Your task to perform on an android device: Search for jbl charge 4 on amazon.com, select the first entry, and add it to the cart. Image 0: 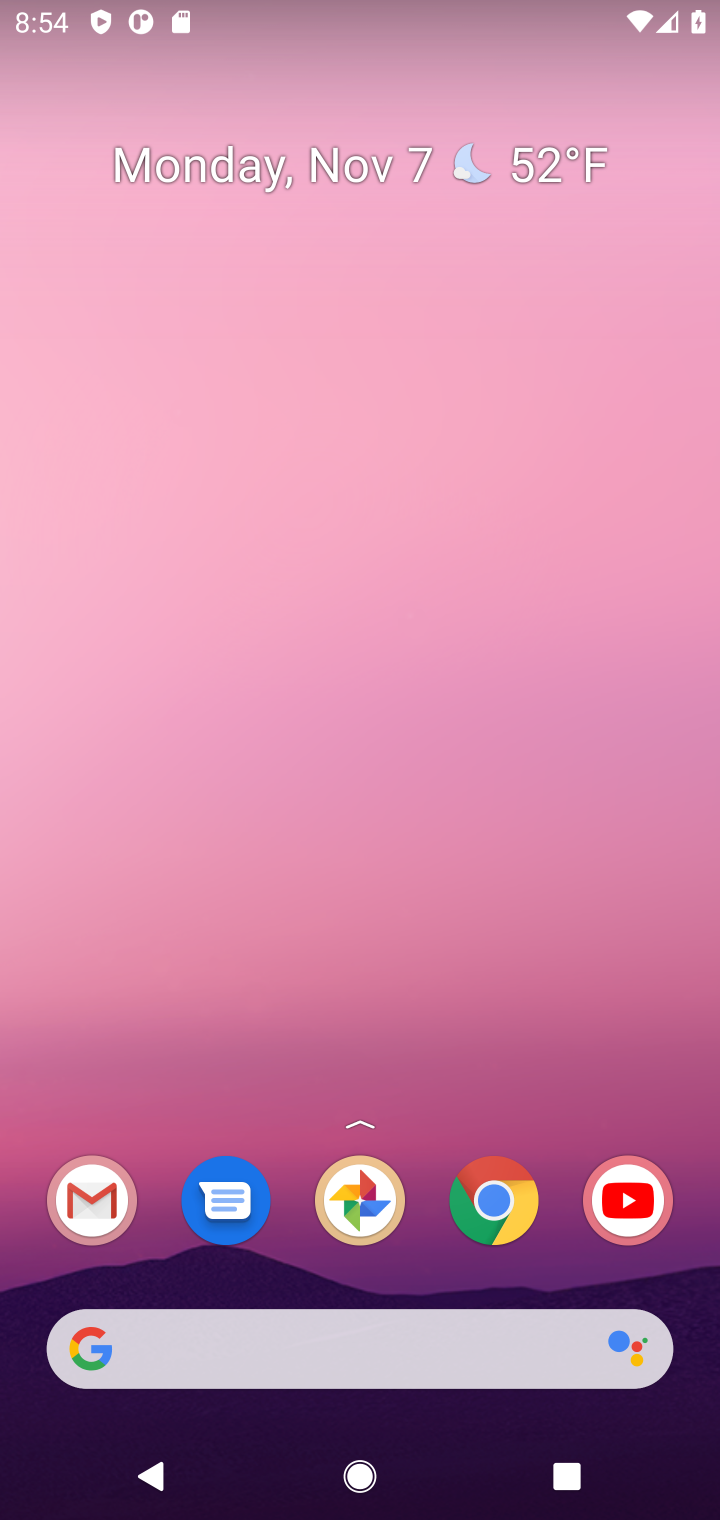
Step 0: click (502, 1192)
Your task to perform on an android device: Search for jbl charge 4 on amazon.com, select the first entry, and add it to the cart. Image 1: 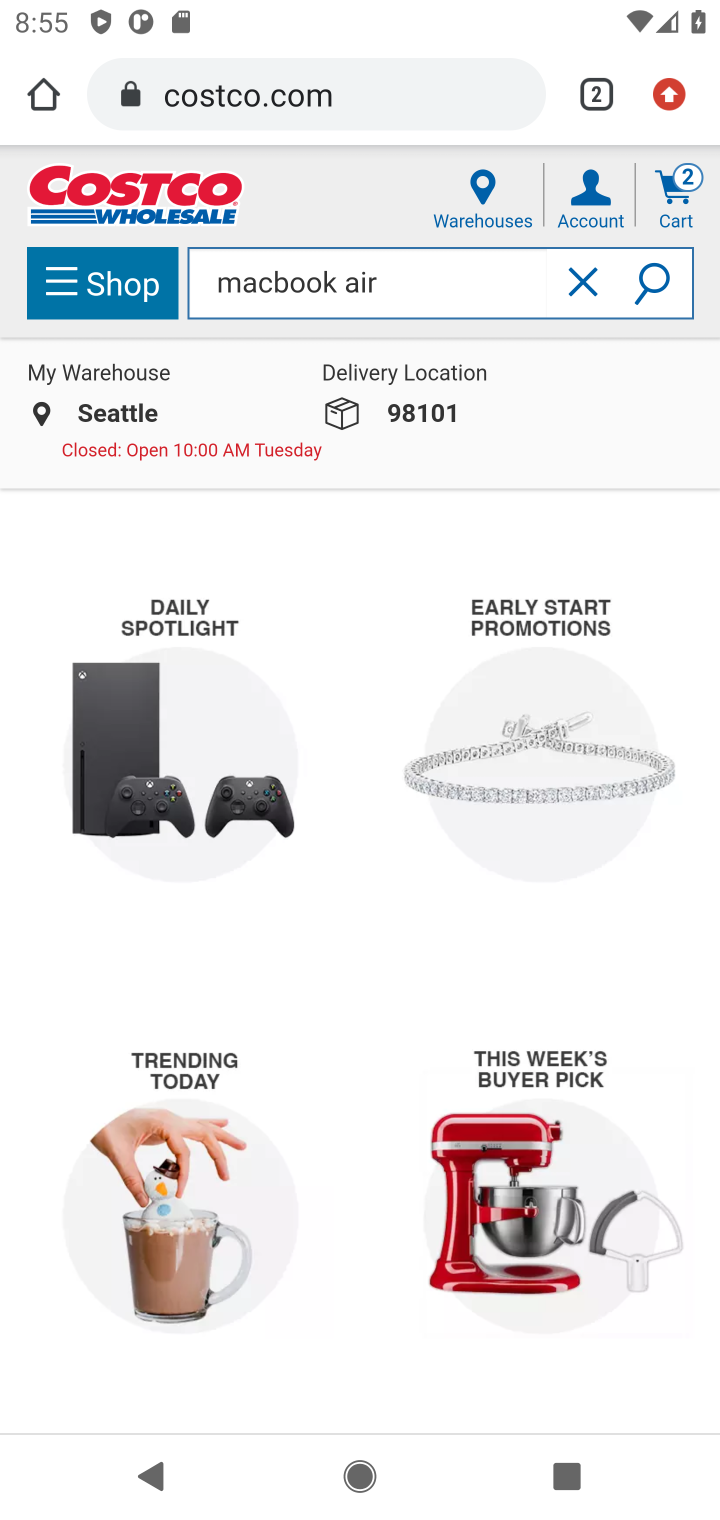
Step 1: click (51, 107)
Your task to perform on an android device: Search for jbl charge 4 on amazon.com, select the first entry, and add it to the cart. Image 2: 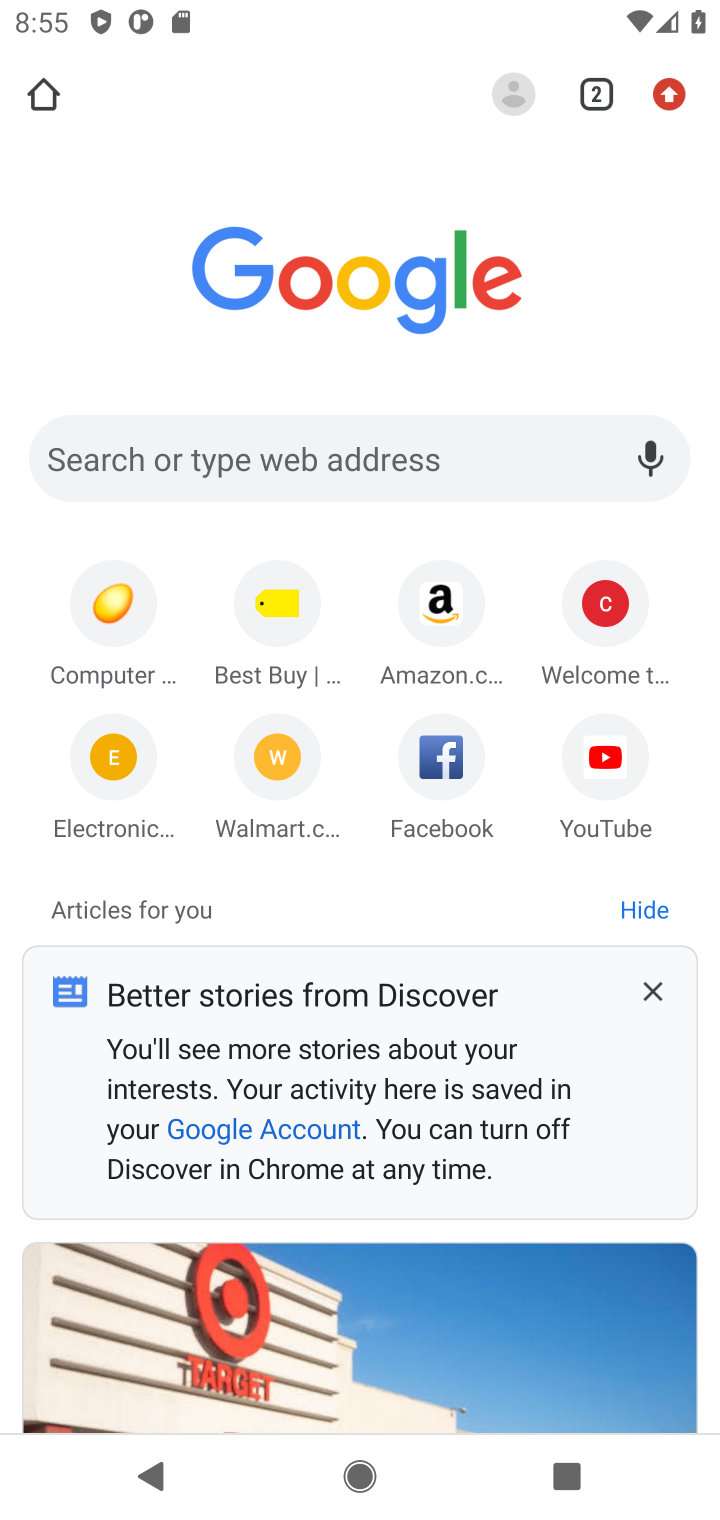
Step 2: click (447, 612)
Your task to perform on an android device: Search for jbl charge 4 on amazon.com, select the first entry, and add it to the cart. Image 3: 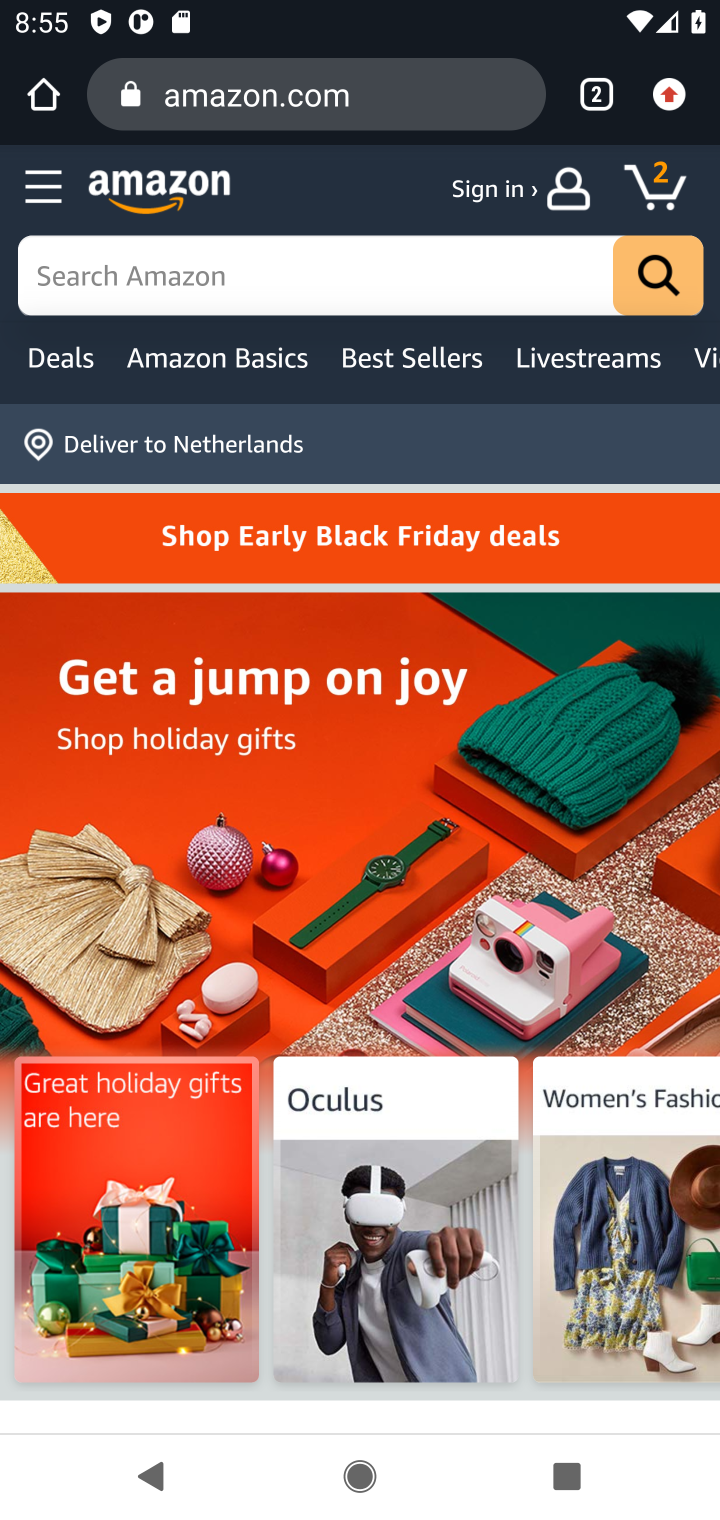
Step 3: click (482, 285)
Your task to perform on an android device: Search for jbl charge 4 on amazon.com, select the first entry, and add it to the cart. Image 4: 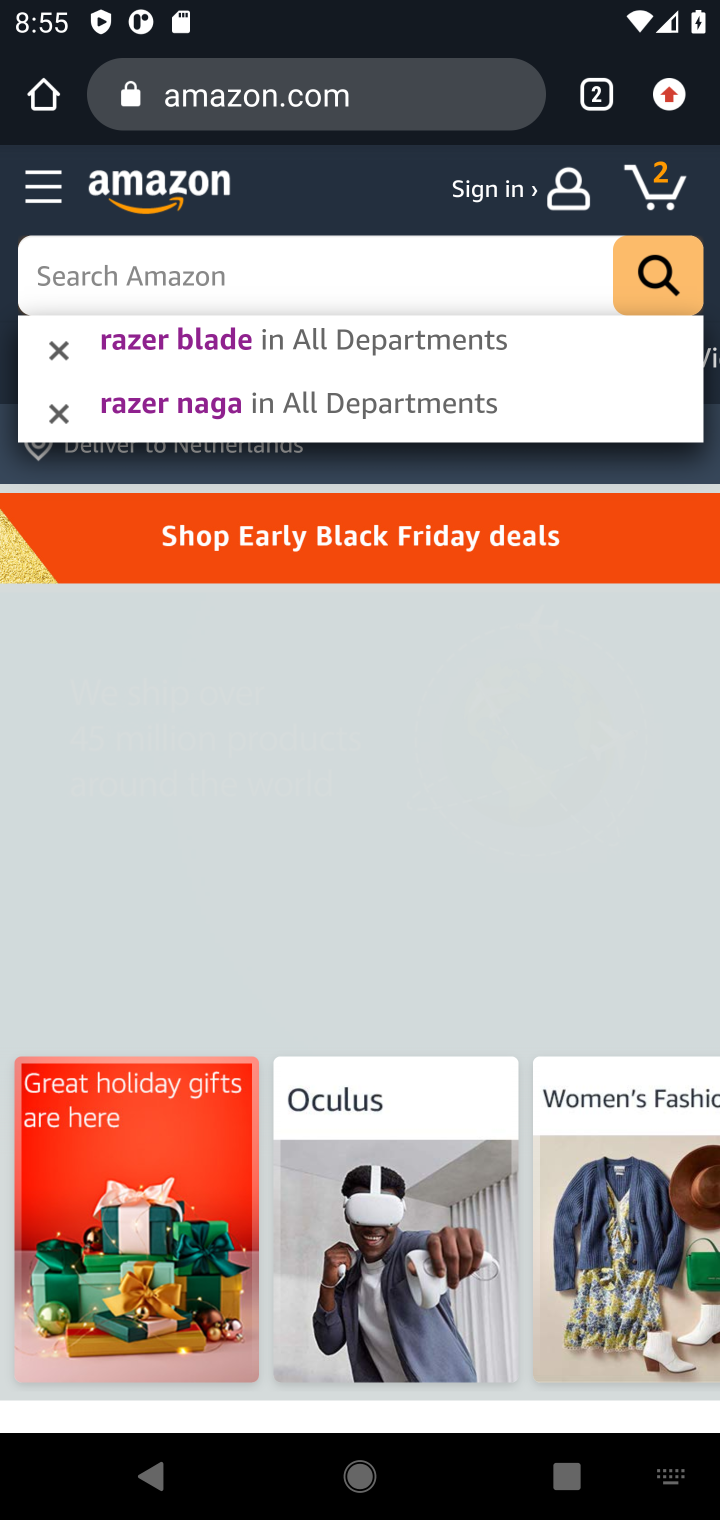
Step 4: type " jbl charge 4"
Your task to perform on an android device: Search for jbl charge 4 on amazon.com, select the first entry, and add it to the cart. Image 5: 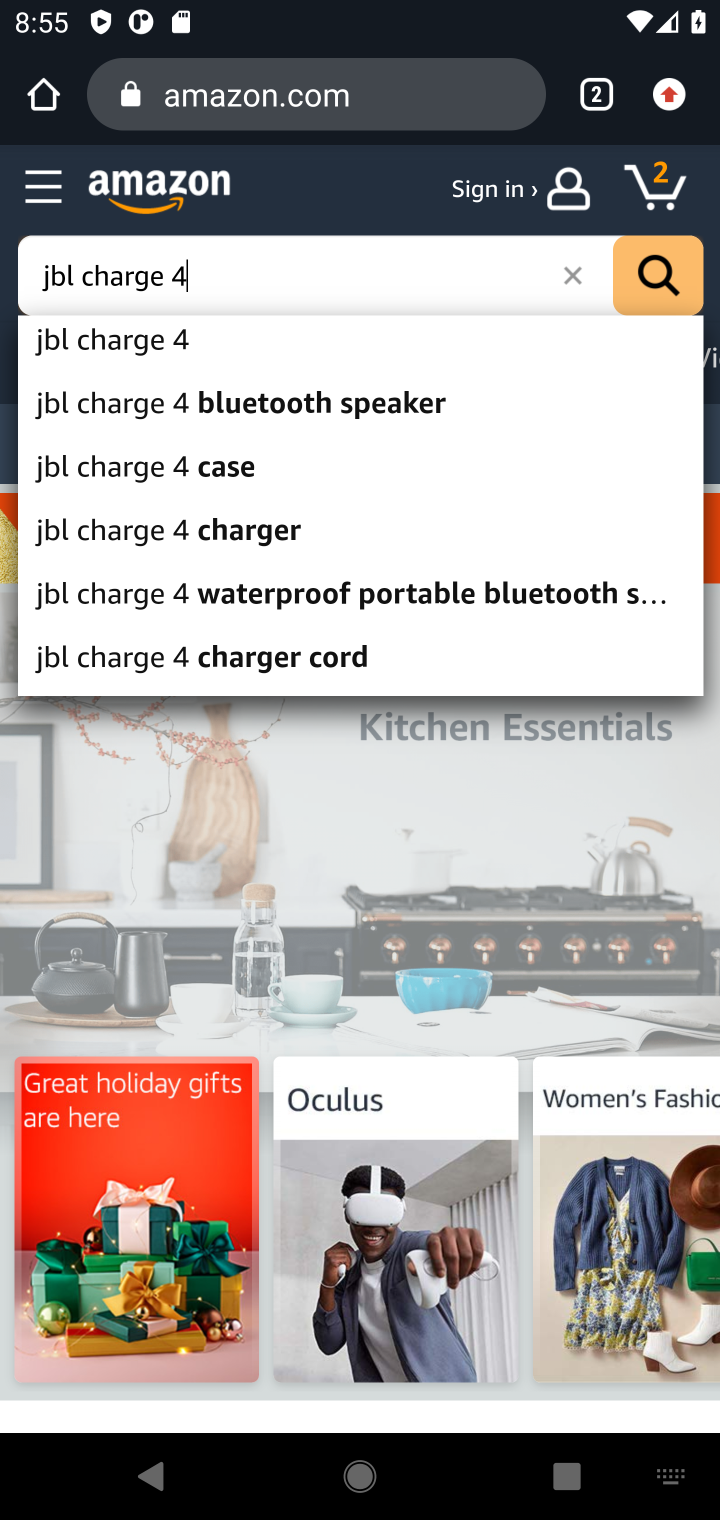
Step 5: click (159, 333)
Your task to perform on an android device: Search for jbl charge 4 on amazon.com, select the first entry, and add it to the cart. Image 6: 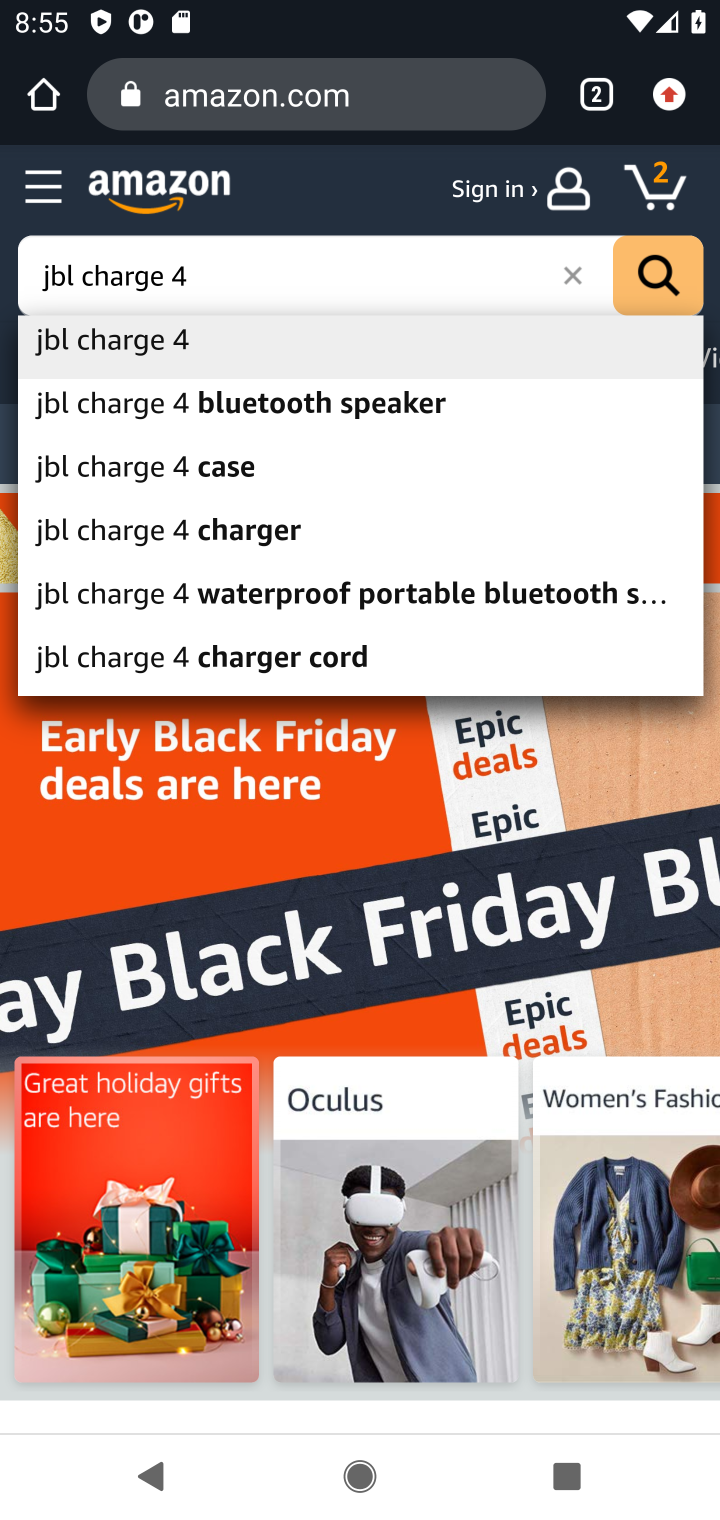
Step 6: click (159, 333)
Your task to perform on an android device: Search for jbl charge 4 on amazon.com, select the first entry, and add it to the cart. Image 7: 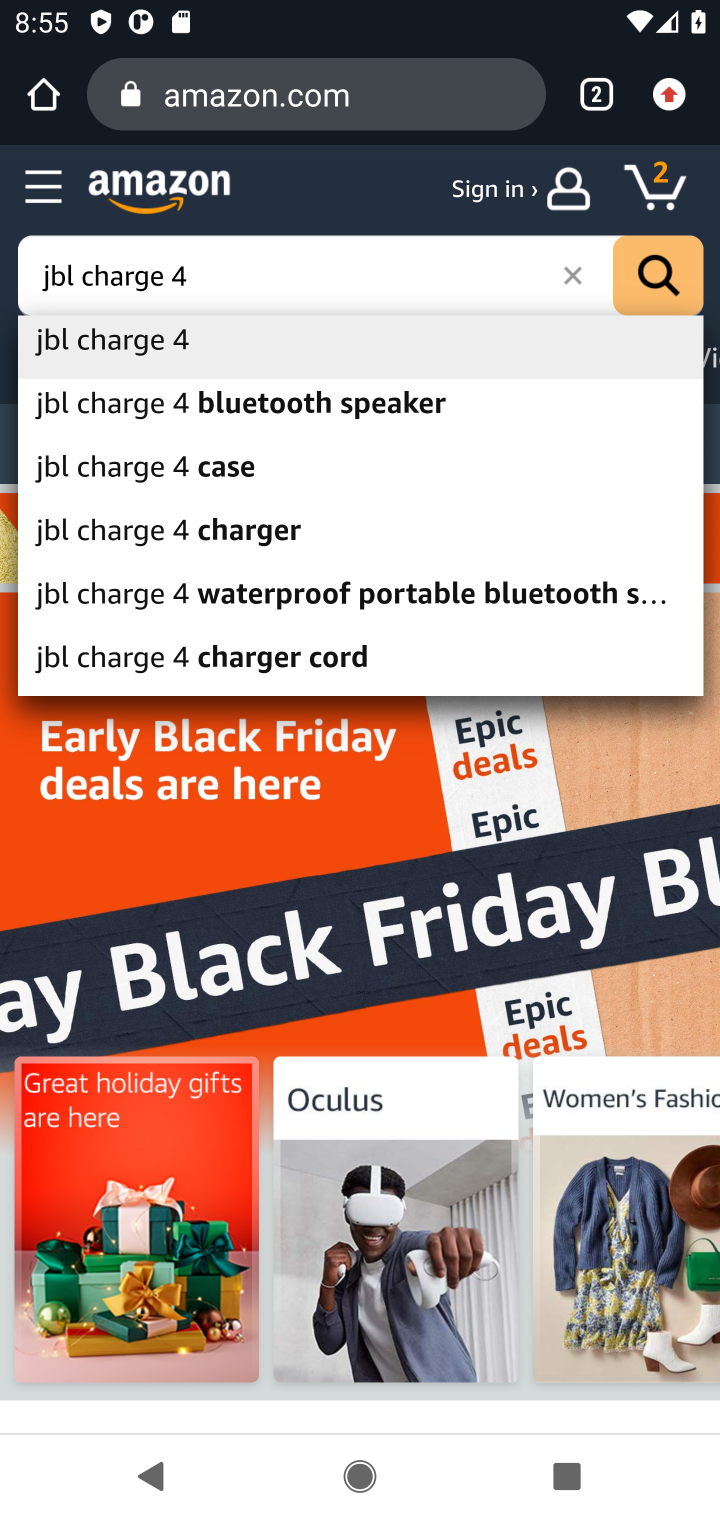
Step 7: click (116, 330)
Your task to perform on an android device: Search for jbl charge 4 on amazon.com, select the first entry, and add it to the cart. Image 8: 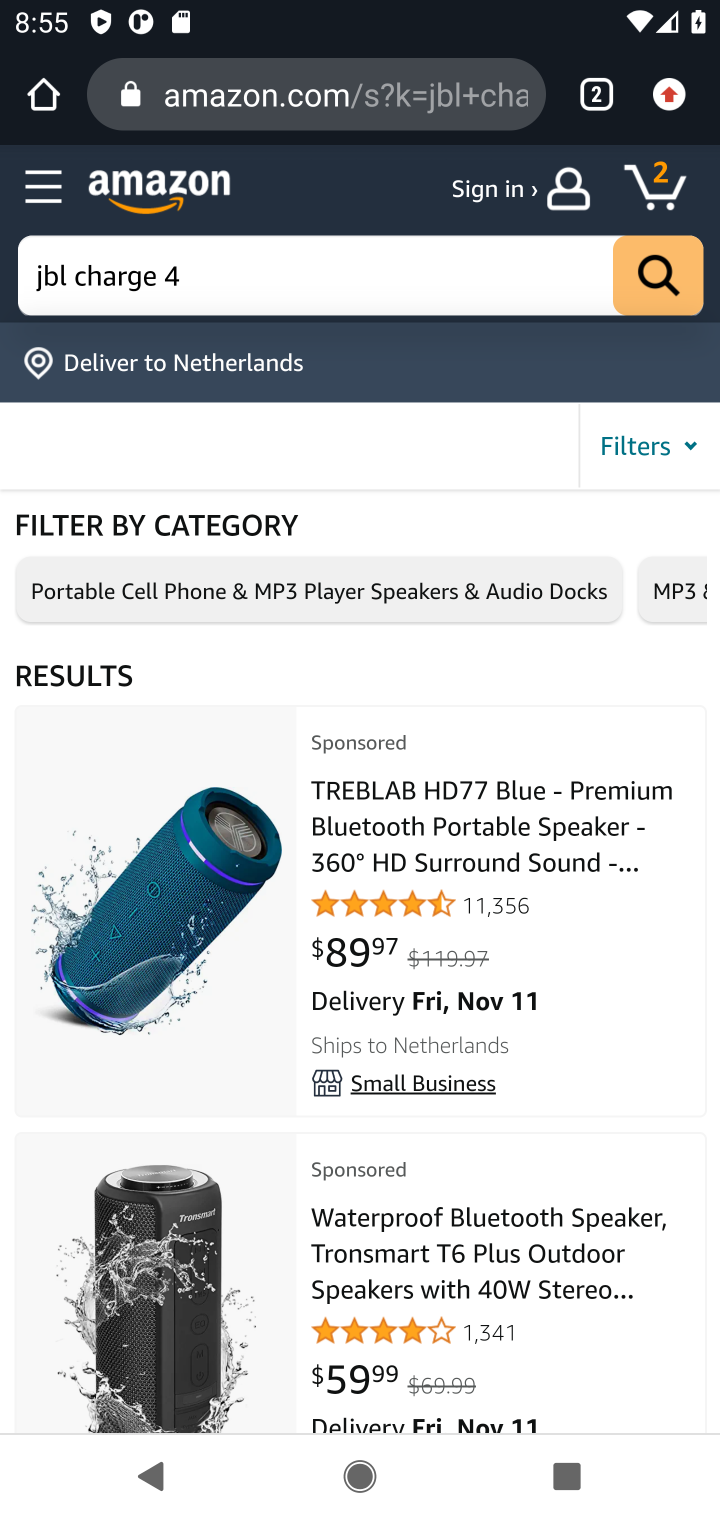
Step 8: drag from (587, 1087) to (446, 648)
Your task to perform on an android device: Search for jbl charge 4 on amazon.com, select the first entry, and add it to the cart. Image 9: 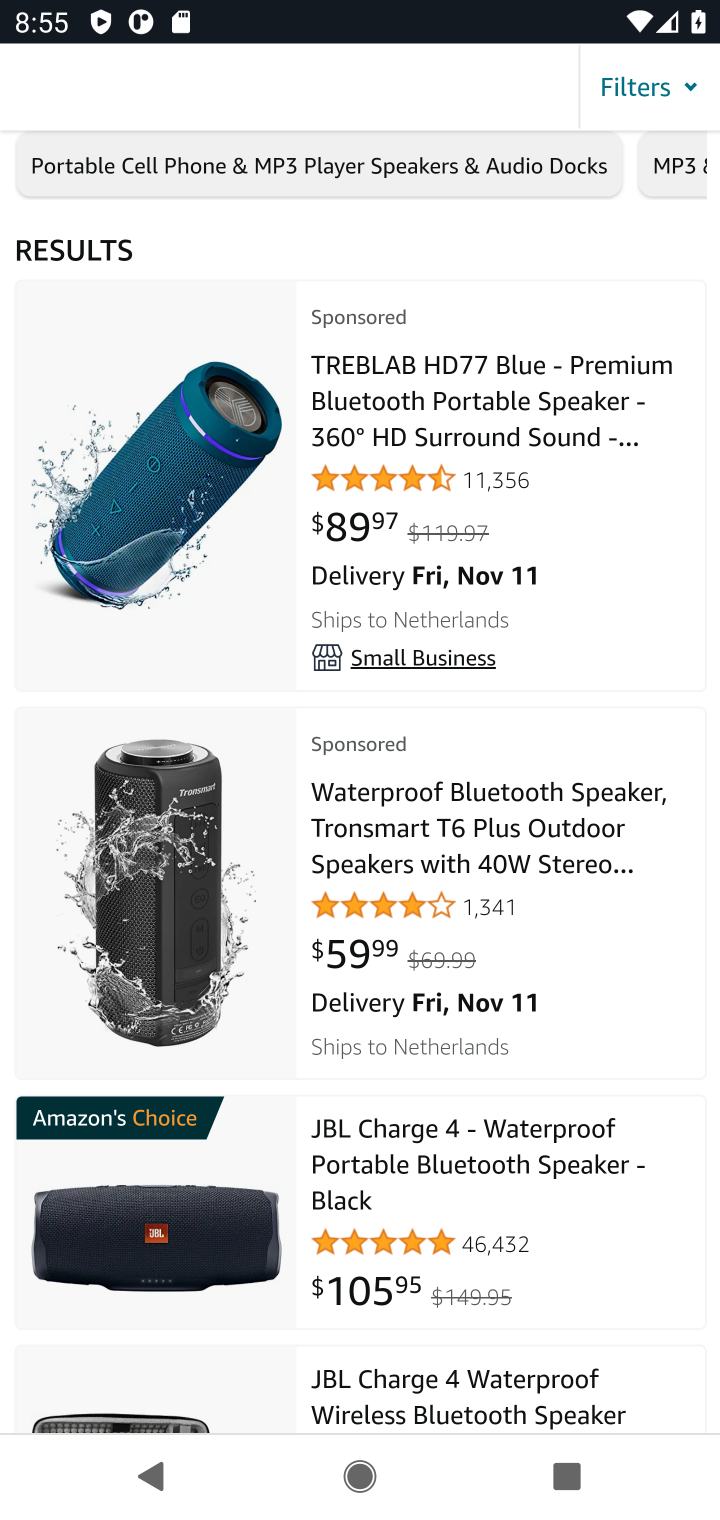
Step 9: click (196, 1208)
Your task to perform on an android device: Search for jbl charge 4 on amazon.com, select the first entry, and add it to the cart. Image 10: 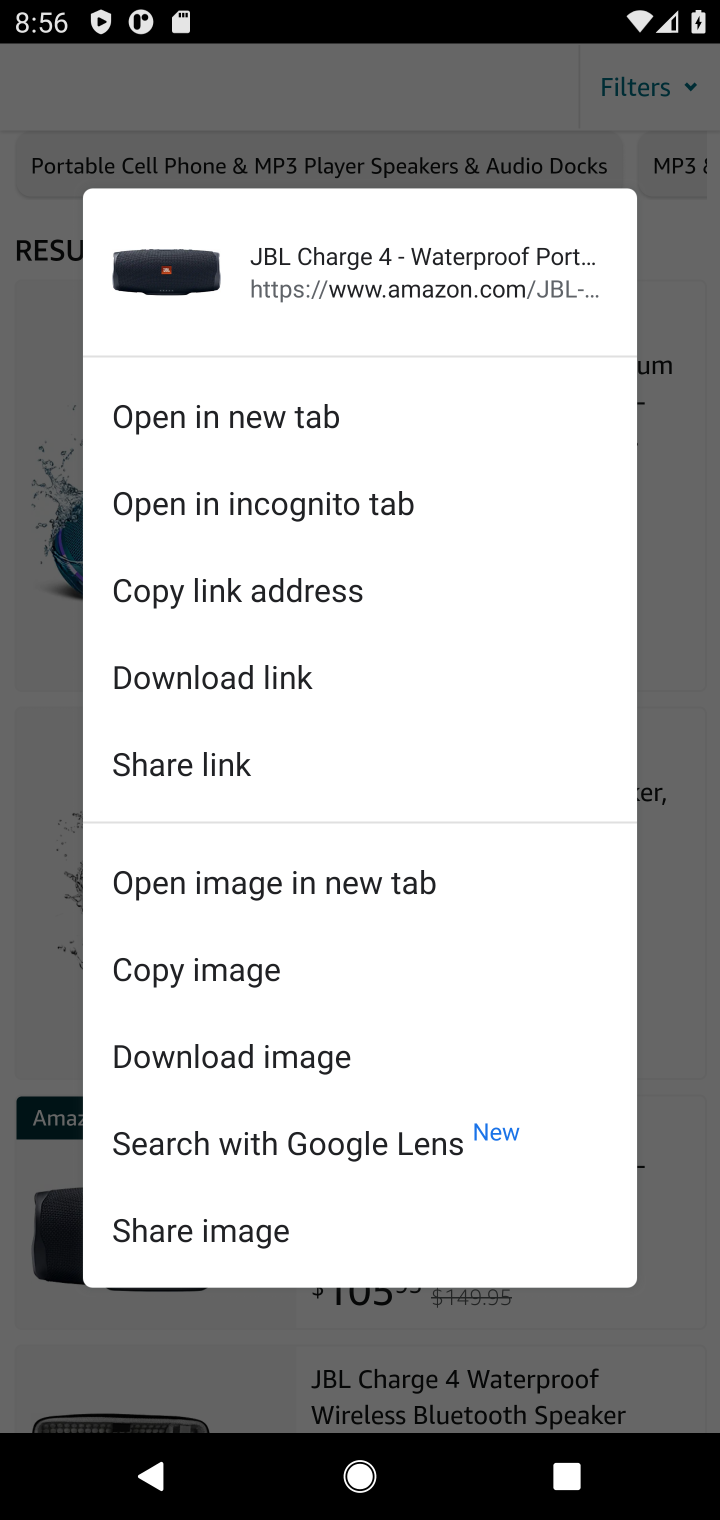
Step 10: click (353, 1319)
Your task to perform on an android device: Search for jbl charge 4 on amazon.com, select the first entry, and add it to the cart. Image 11: 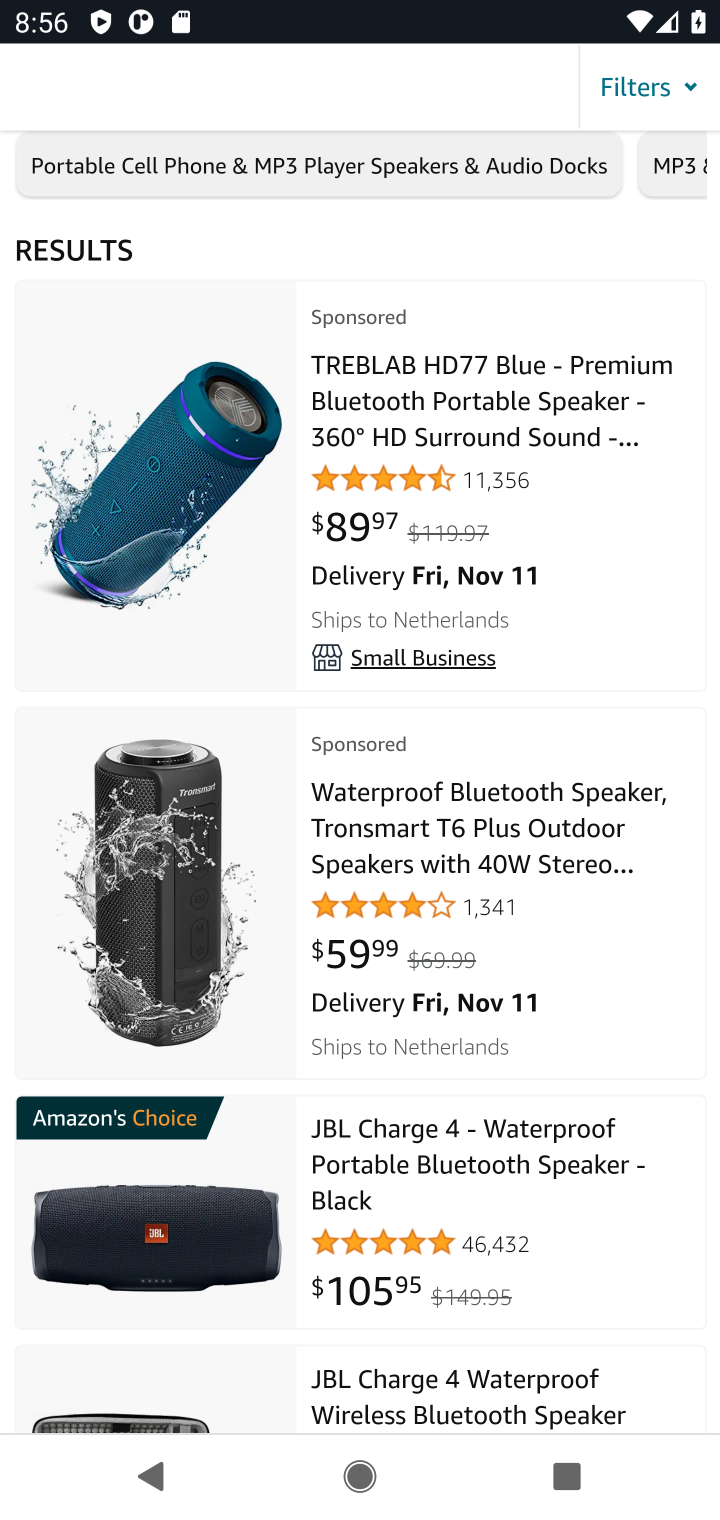
Step 11: click (158, 1236)
Your task to perform on an android device: Search for jbl charge 4 on amazon.com, select the first entry, and add it to the cart. Image 12: 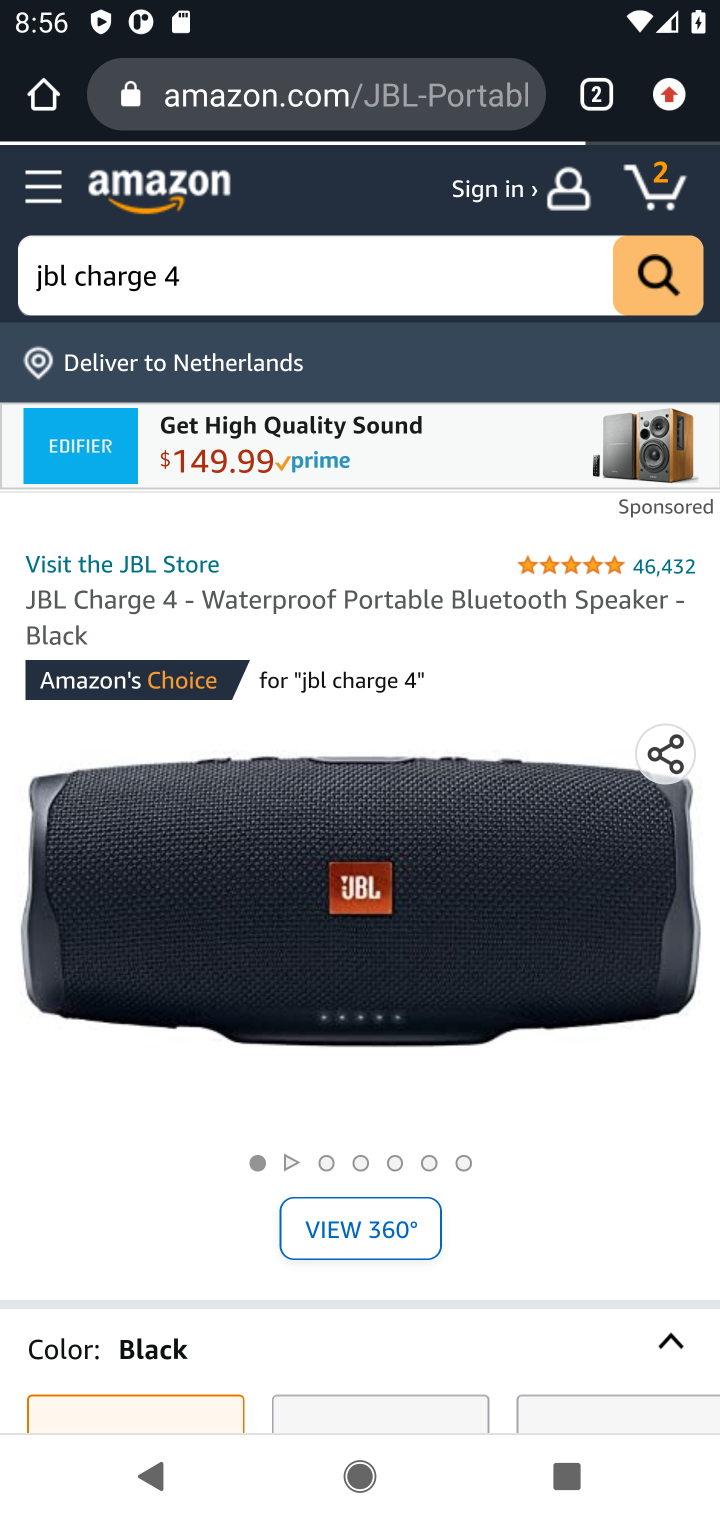
Step 12: drag from (548, 971) to (505, 614)
Your task to perform on an android device: Search for jbl charge 4 on amazon.com, select the first entry, and add it to the cart. Image 13: 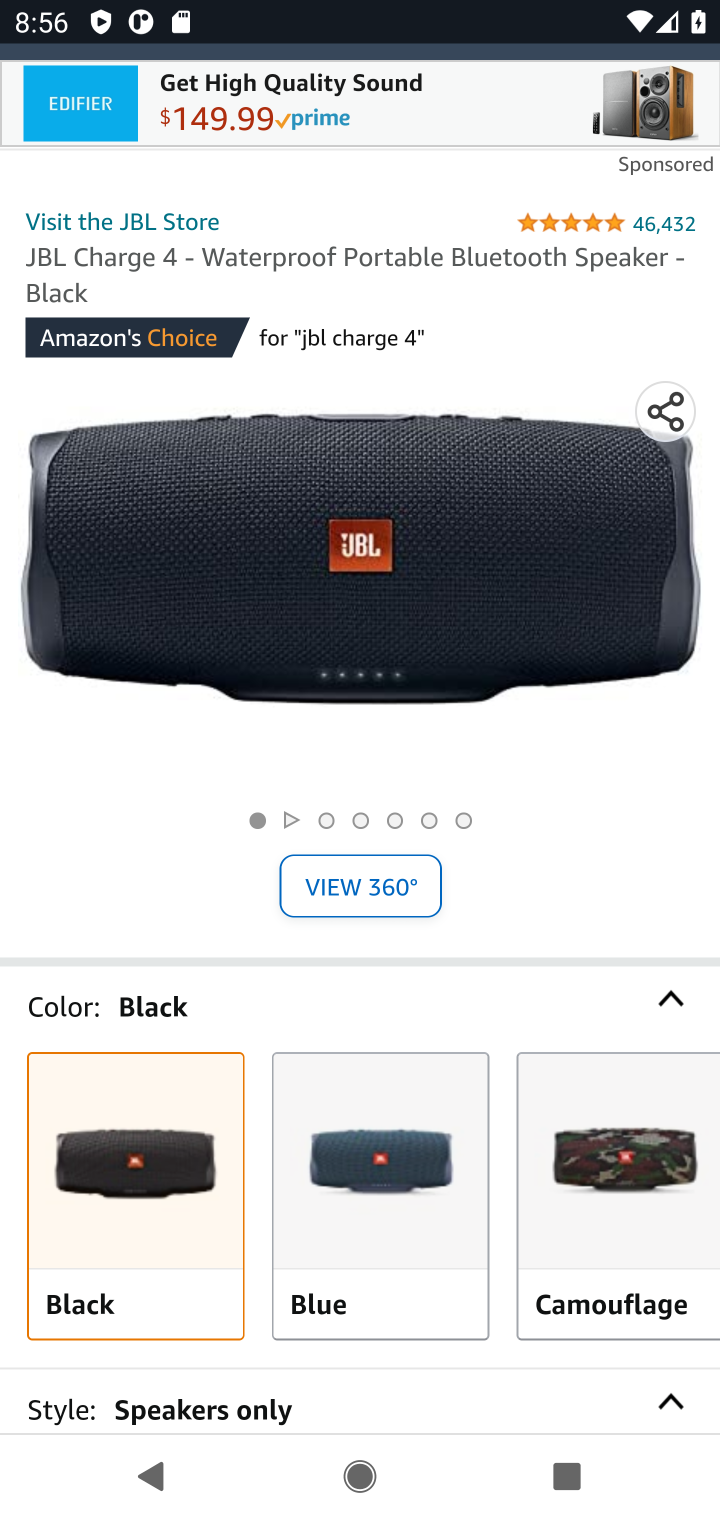
Step 13: drag from (578, 1208) to (615, 584)
Your task to perform on an android device: Search for jbl charge 4 on amazon.com, select the first entry, and add it to the cart. Image 14: 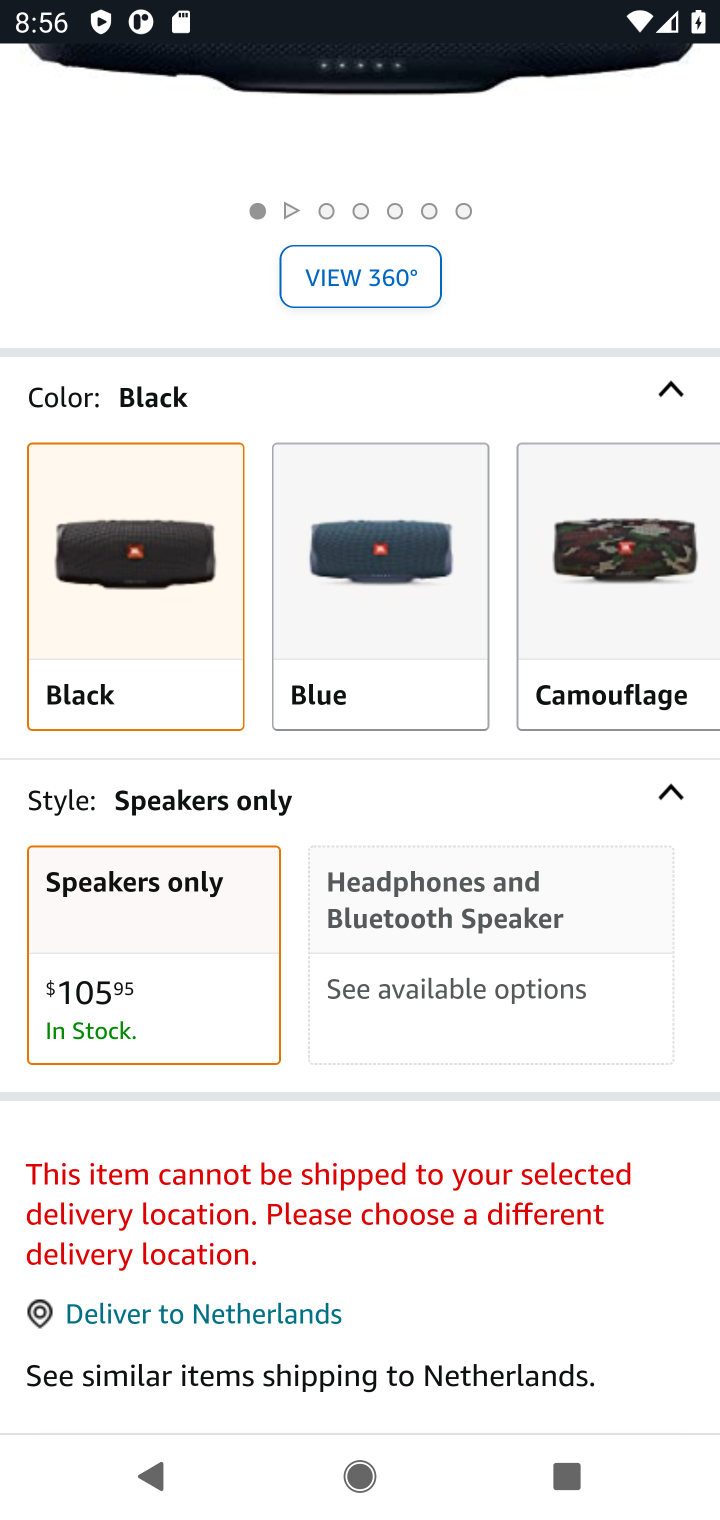
Step 14: drag from (632, 1176) to (520, 696)
Your task to perform on an android device: Search for jbl charge 4 on amazon.com, select the first entry, and add it to the cart. Image 15: 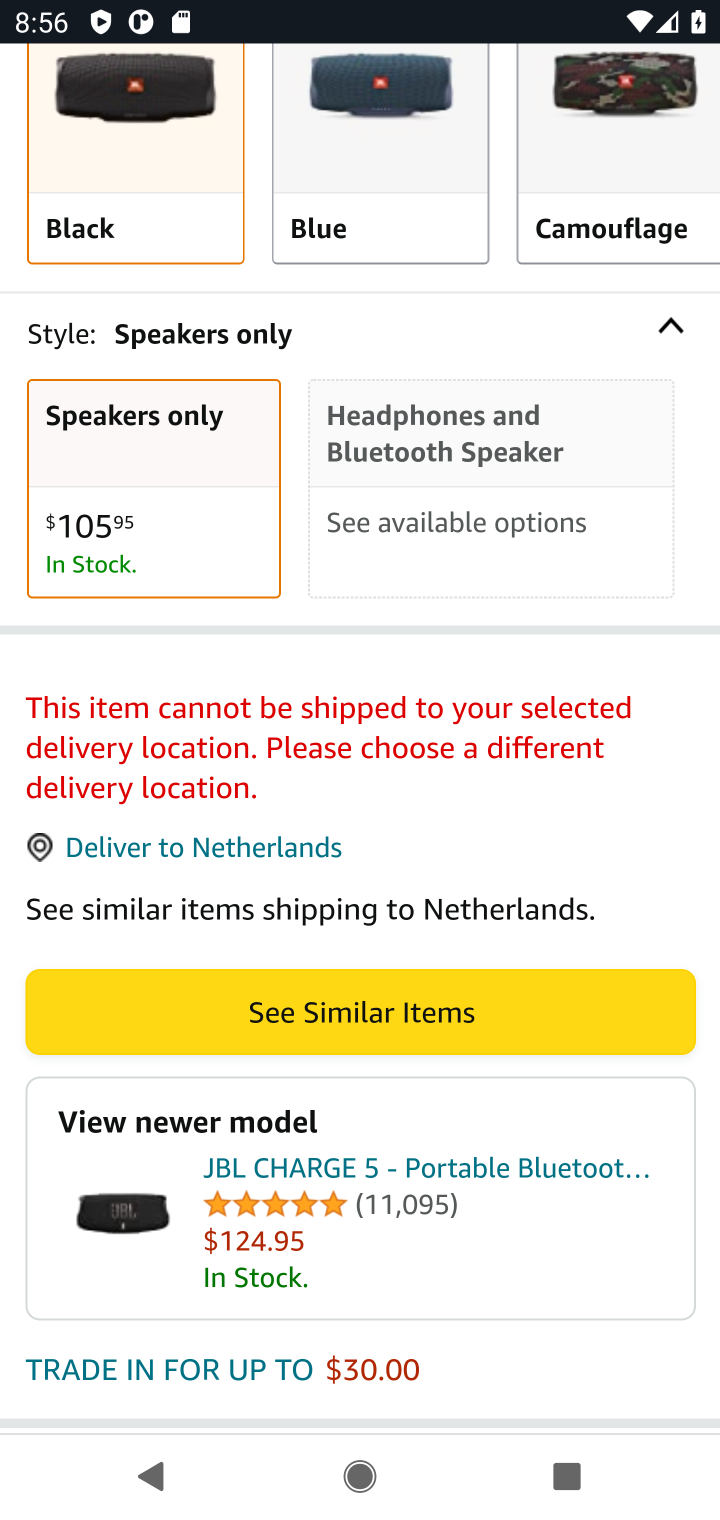
Step 15: press back button
Your task to perform on an android device: Search for jbl charge 4 on amazon.com, select the first entry, and add it to the cart. Image 16: 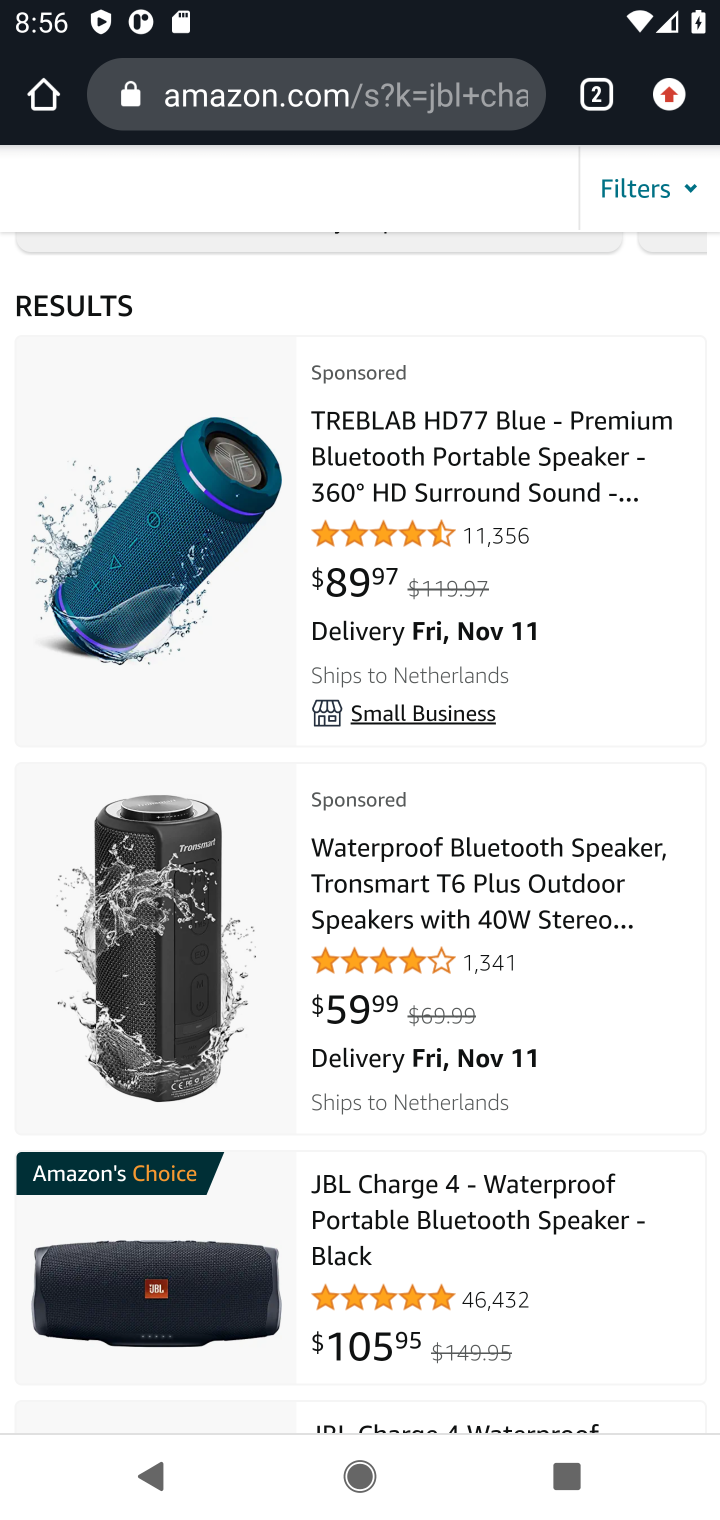
Step 16: drag from (221, 1014) to (324, 240)
Your task to perform on an android device: Search for jbl charge 4 on amazon.com, select the first entry, and add it to the cart. Image 17: 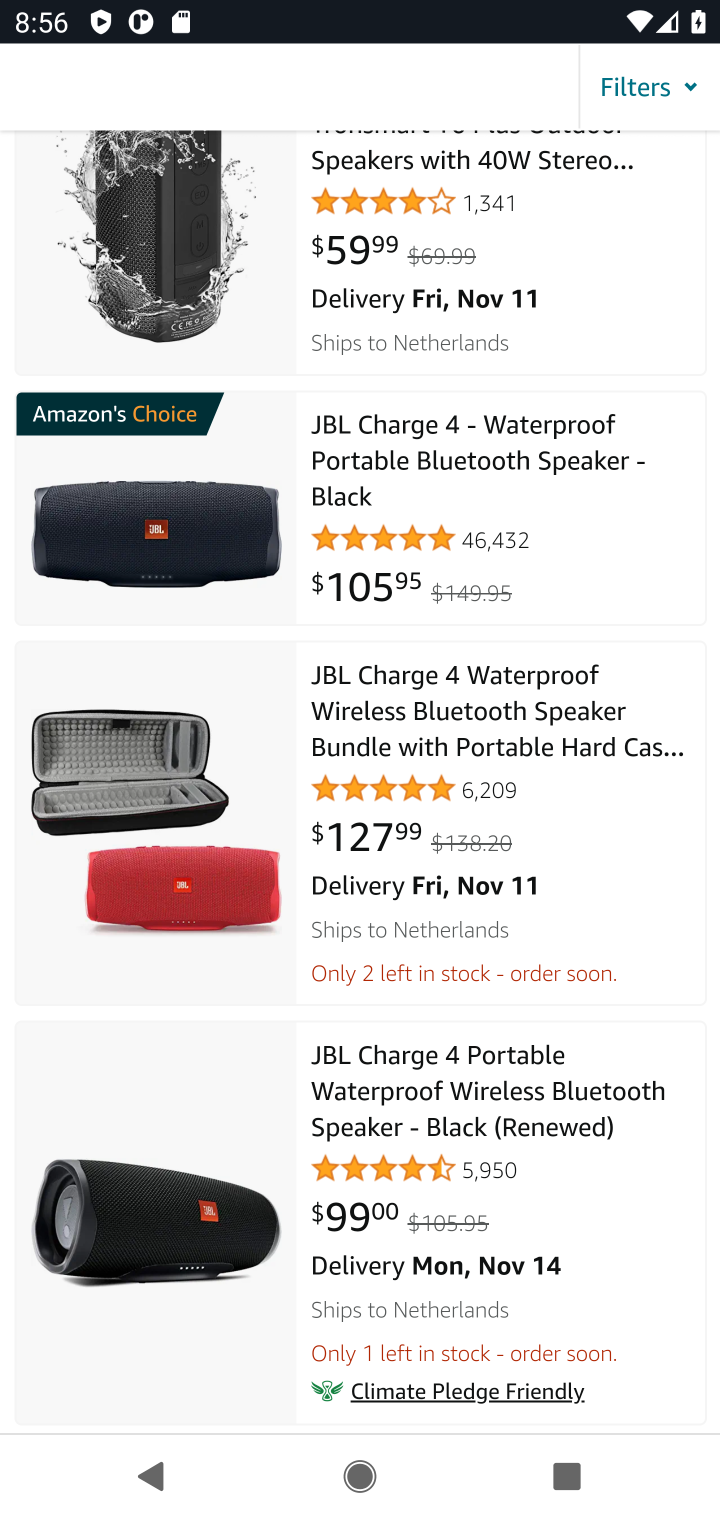
Step 17: click (173, 1113)
Your task to perform on an android device: Search for jbl charge 4 on amazon.com, select the first entry, and add it to the cart. Image 18: 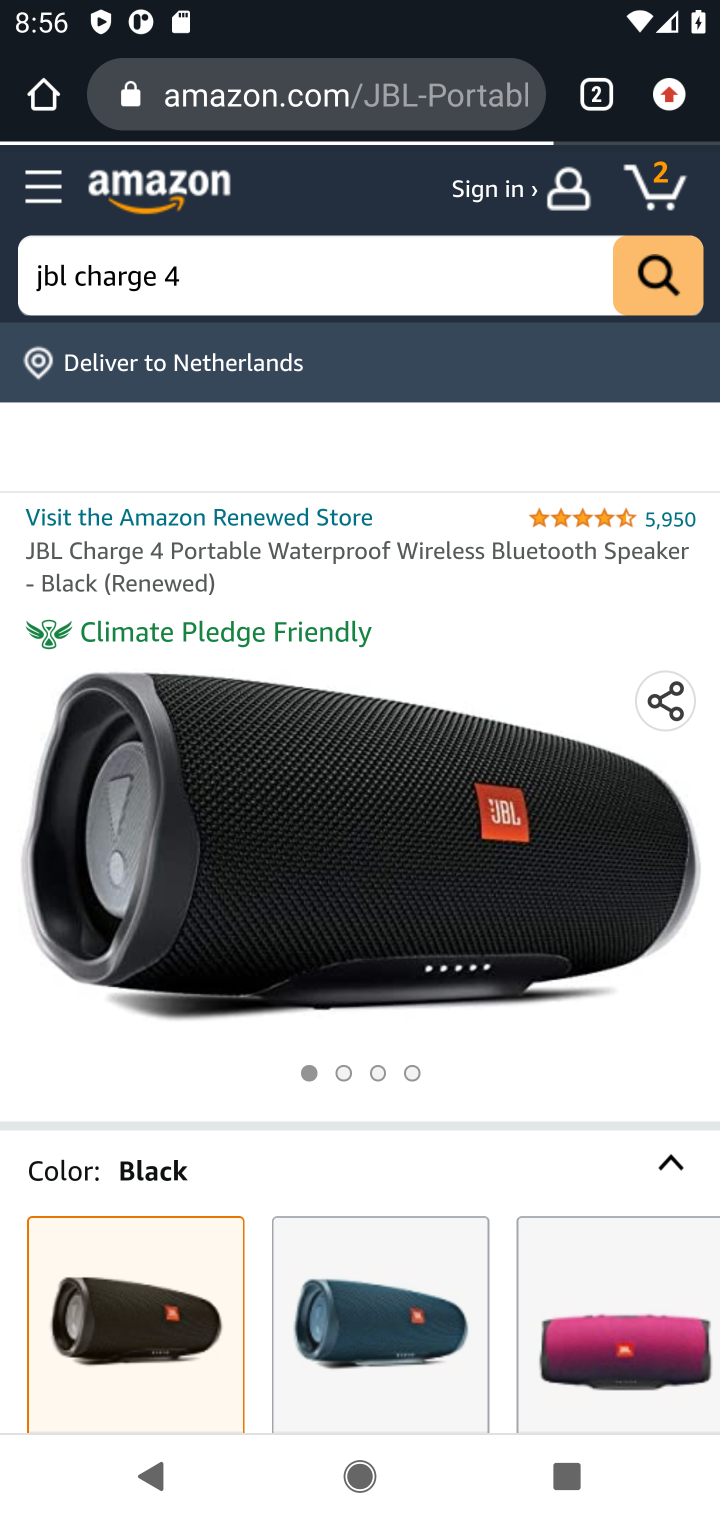
Step 18: drag from (473, 1140) to (528, 497)
Your task to perform on an android device: Search for jbl charge 4 on amazon.com, select the first entry, and add it to the cart. Image 19: 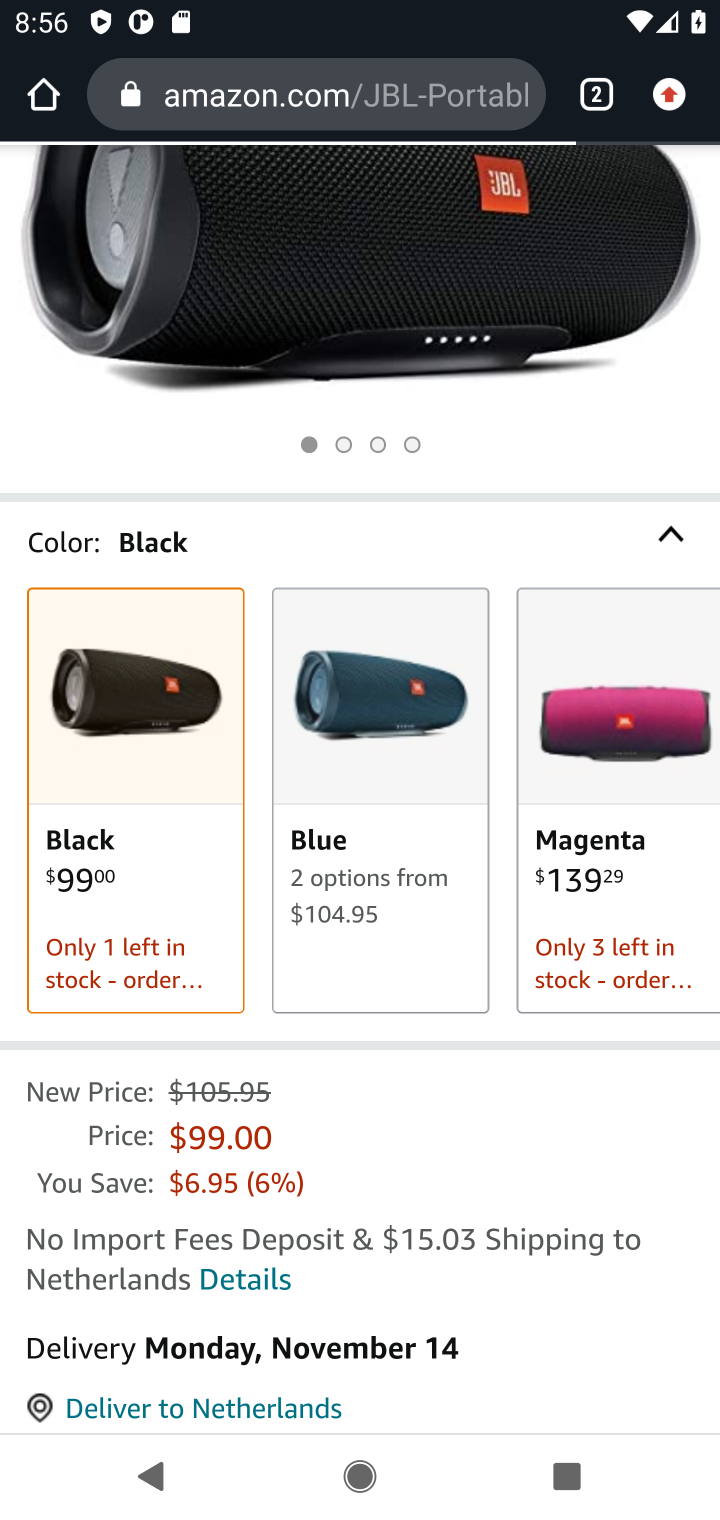
Step 19: drag from (571, 1204) to (489, 675)
Your task to perform on an android device: Search for jbl charge 4 on amazon.com, select the first entry, and add it to the cart. Image 20: 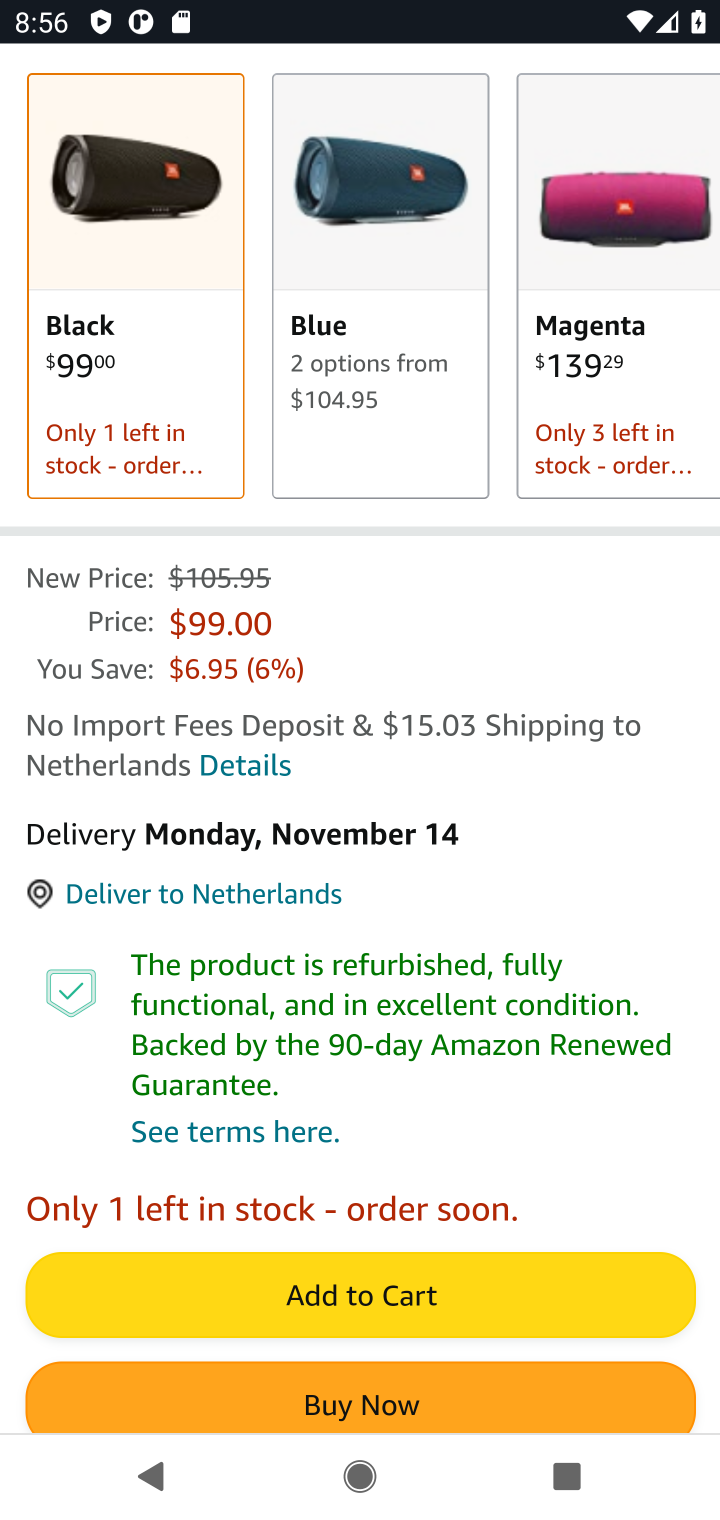
Step 20: click (389, 1296)
Your task to perform on an android device: Search for jbl charge 4 on amazon.com, select the first entry, and add it to the cart. Image 21: 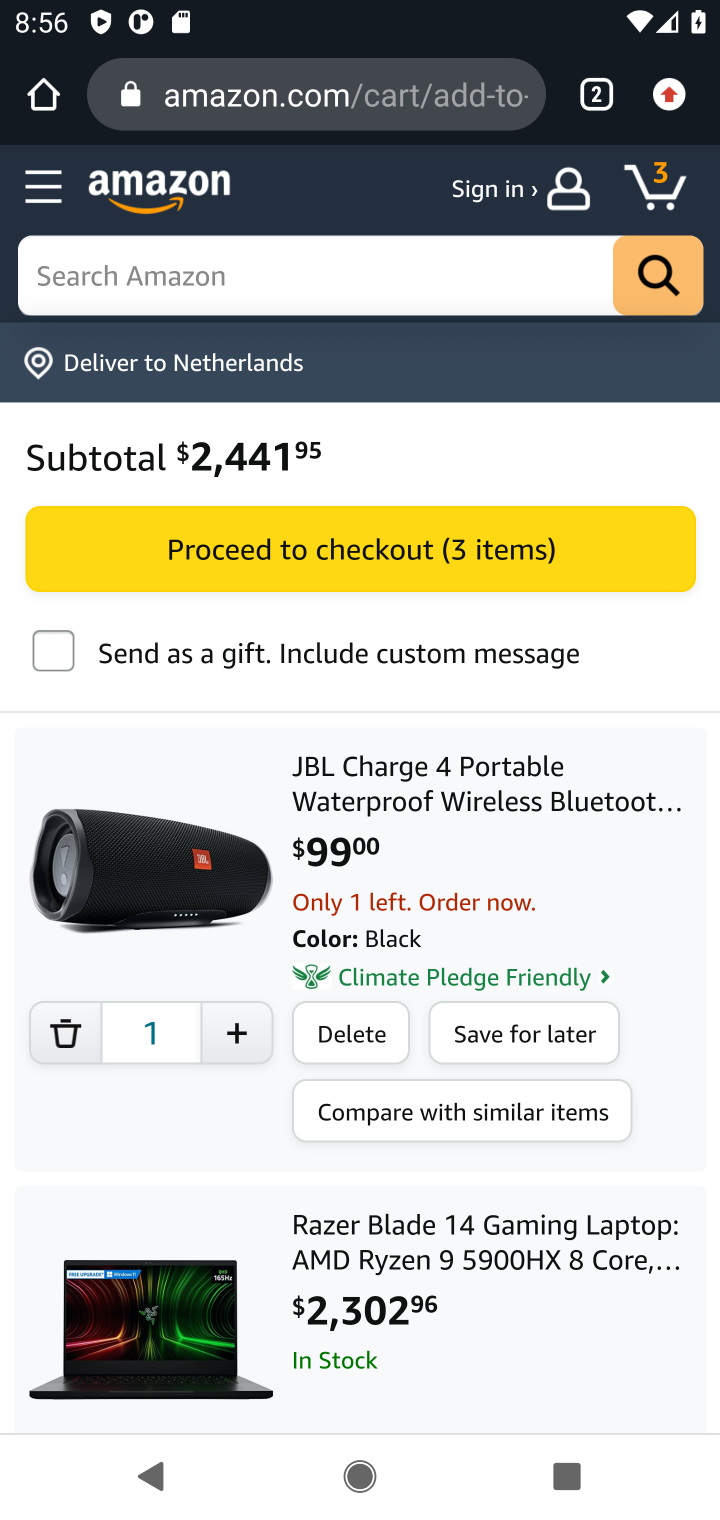
Step 21: task complete